Your task to perform on an android device: check out phone information Image 0: 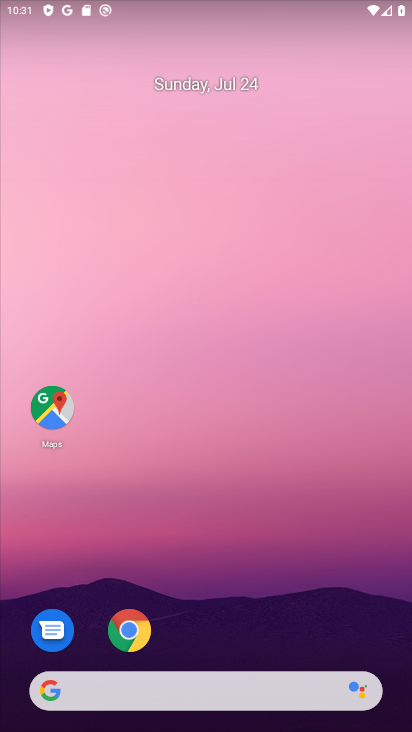
Step 0: press home button
Your task to perform on an android device: check out phone information Image 1: 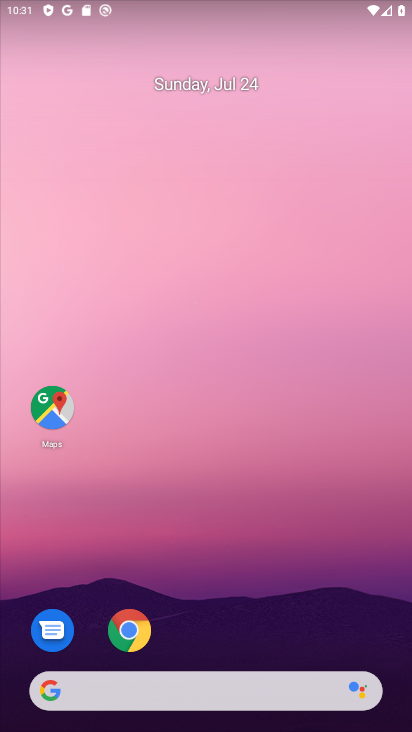
Step 1: drag from (249, 609) to (183, 169)
Your task to perform on an android device: check out phone information Image 2: 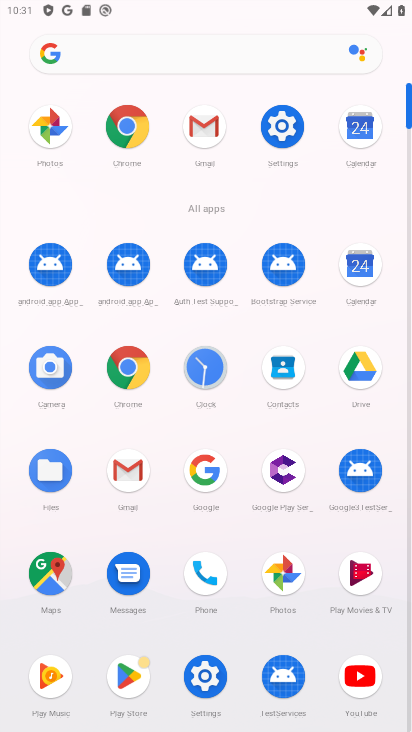
Step 2: click (288, 114)
Your task to perform on an android device: check out phone information Image 3: 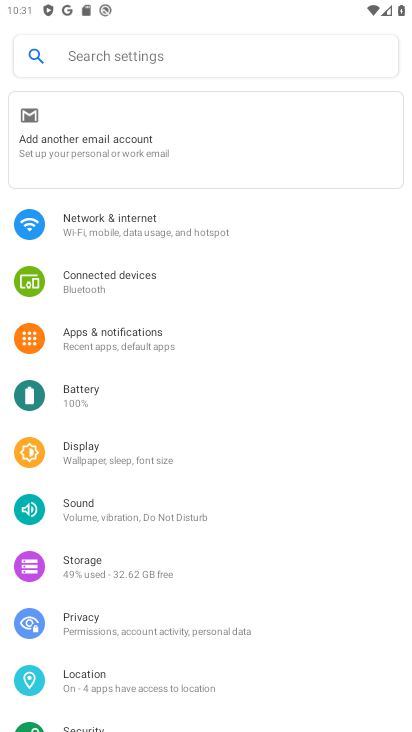
Step 3: drag from (290, 712) to (318, 54)
Your task to perform on an android device: check out phone information Image 4: 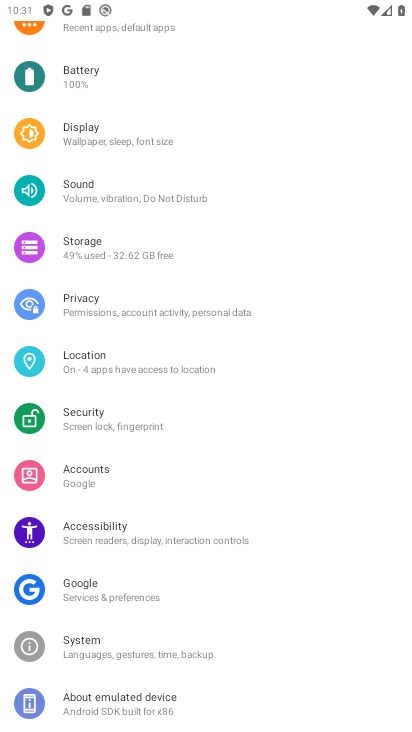
Step 4: click (91, 696)
Your task to perform on an android device: check out phone information Image 5: 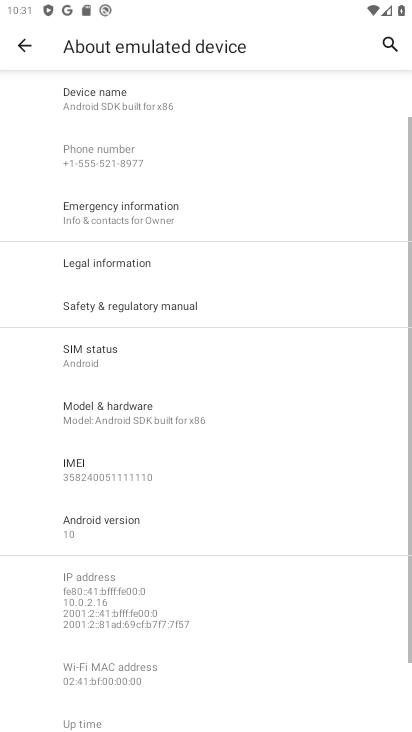
Step 5: task complete